Your task to perform on an android device: delete the emails in spam in the gmail app Image 0: 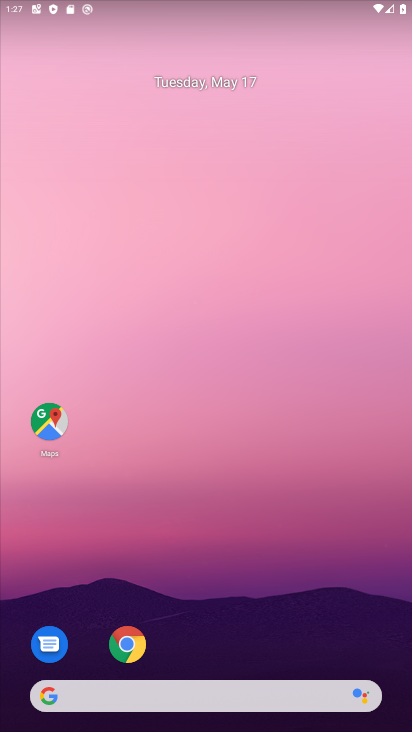
Step 0: drag from (202, 689) to (251, 256)
Your task to perform on an android device: delete the emails in spam in the gmail app Image 1: 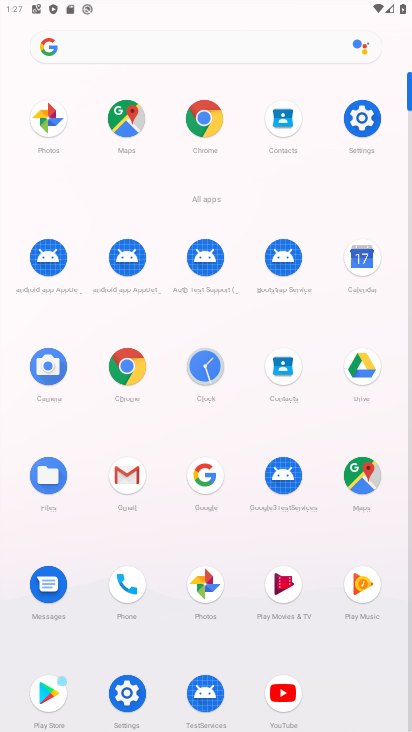
Step 1: click (116, 492)
Your task to perform on an android device: delete the emails in spam in the gmail app Image 2: 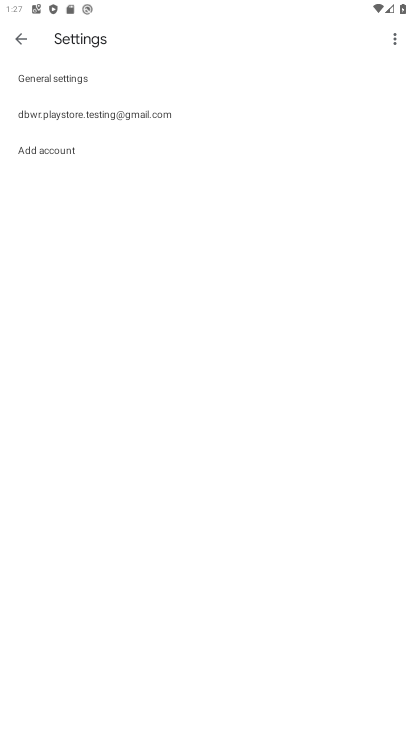
Step 2: click (22, 47)
Your task to perform on an android device: delete the emails in spam in the gmail app Image 3: 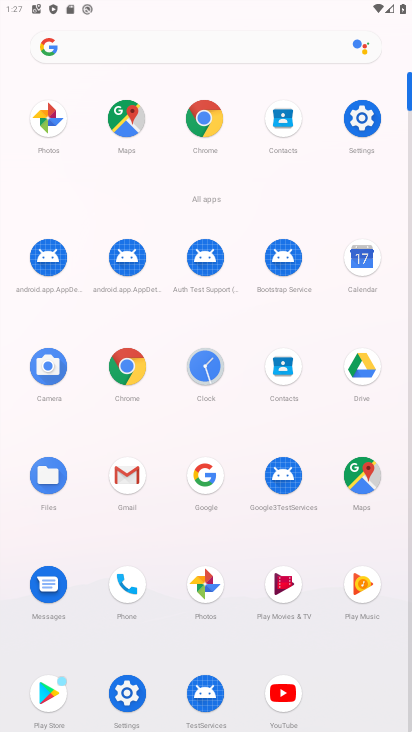
Step 3: click (135, 467)
Your task to perform on an android device: delete the emails in spam in the gmail app Image 4: 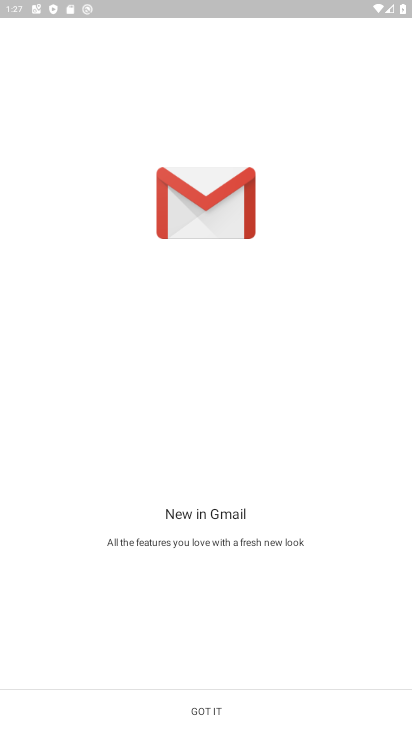
Step 4: click (212, 712)
Your task to perform on an android device: delete the emails in spam in the gmail app Image 5: 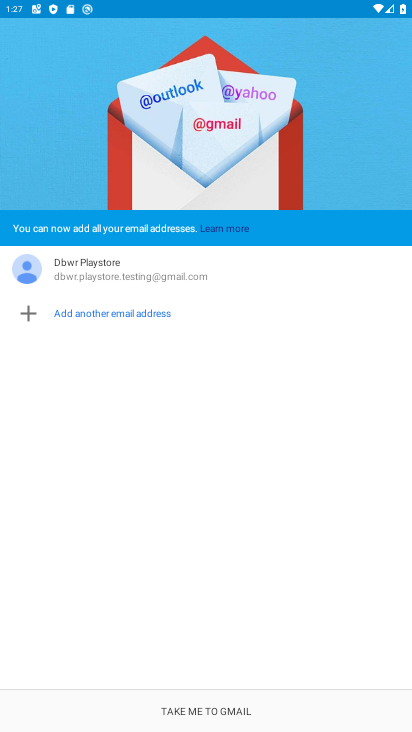
Step 5: click (212, 712)
Your task to perform on an android device: delete the emails in spam in the gmail app Image 6: 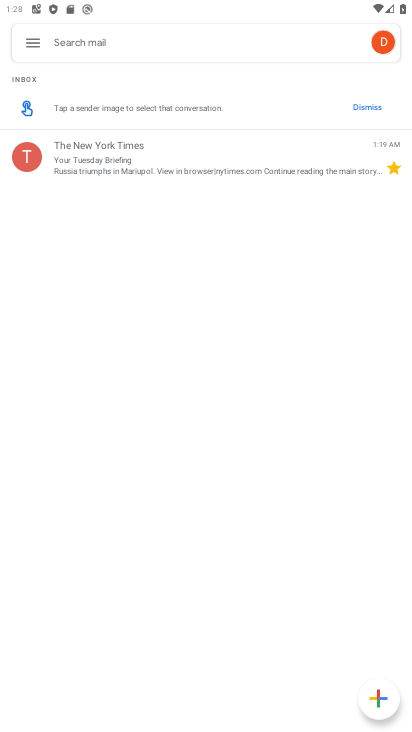
Step 6: click (39, 47)
Your task to perform on an android device: delete the emails in spam in the gmail app Image 7: 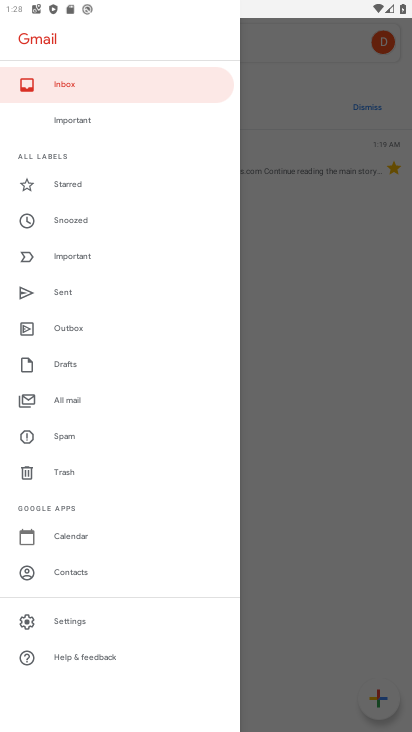
Step 7: click (79, 435)
Your task to perform on an android device: delete the emails in spam in the gmail app Image 8: 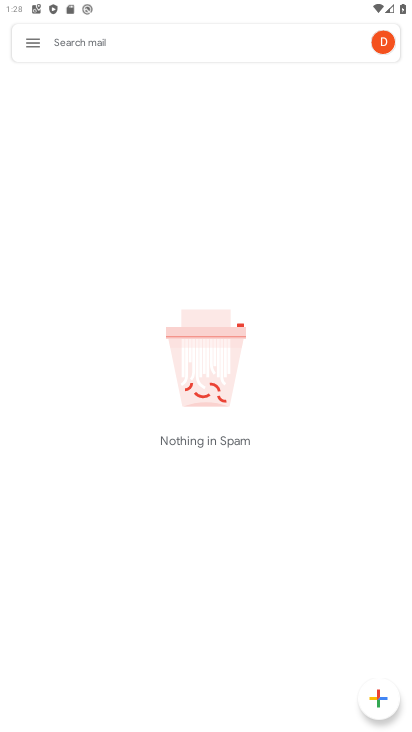
Step 8: task complete